Your task to perform on an android device: turn off notifications settings in the gmail app Image 0: 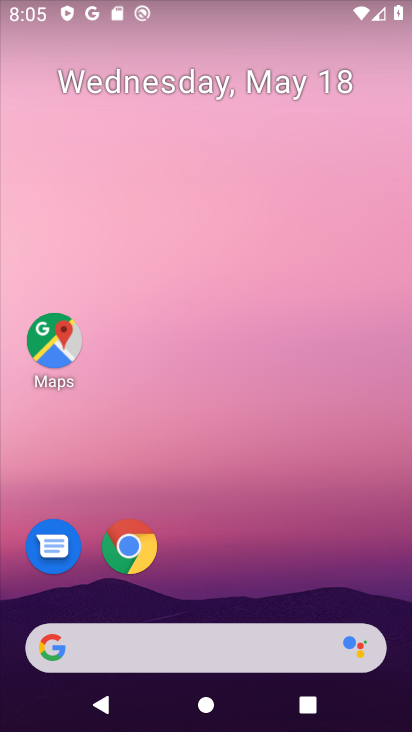
Step 0: drag from (218, 600) to (12, 23)
Your task to perform on an android device: turn off notifications settings in the gmail app Image 1: 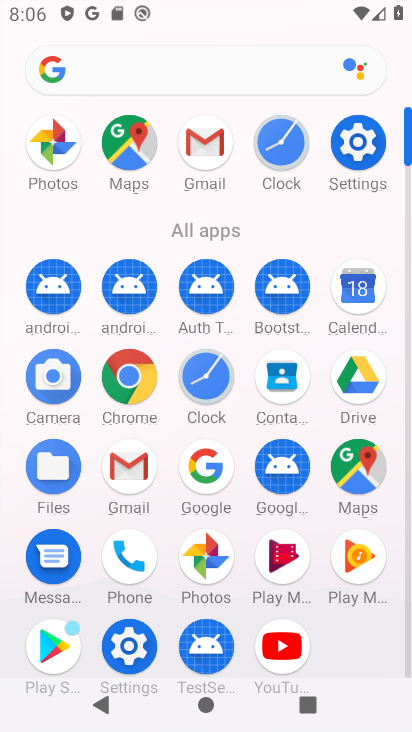
Step 1: click (215, 151)
Your task to perform on an android device: turn off notifications settings in the gmail app Image 2: 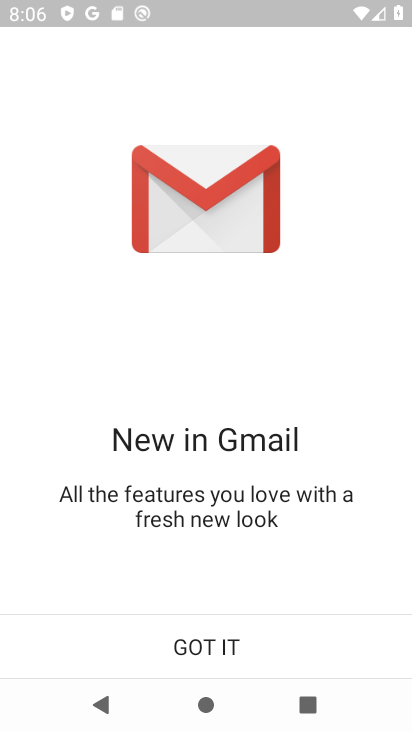
Step 2: click (240, 151)
Your task to perform on an android device: turn off notifications settings in the gmail app Image 3: 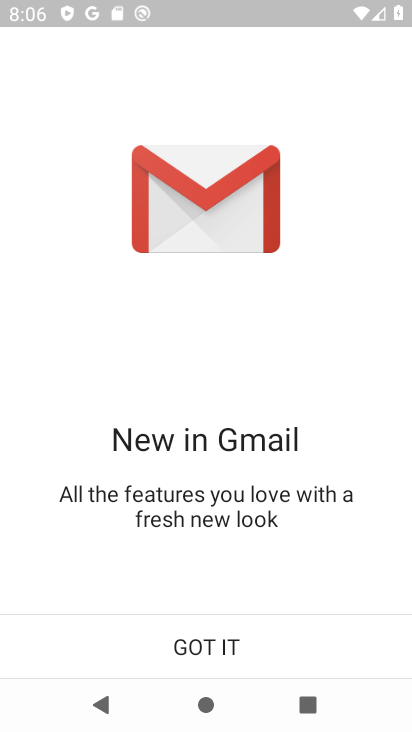
Step 3: click (212, 647)
Your task to perform on an android device: turn off notifications settings in the gmail app Image 4: 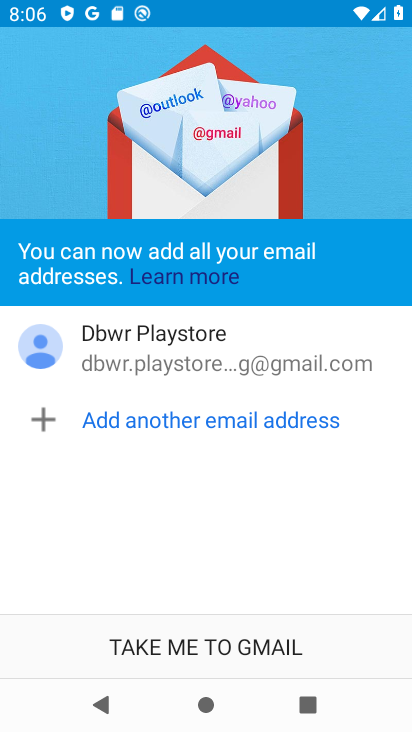
Step 4: click (208, 647)
Your task to perform on an android device: turn off notifications settings in the gmail app Image 5: 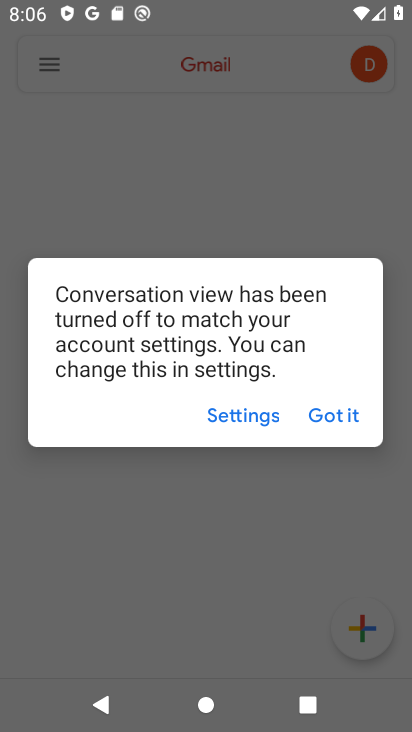
Step 5: click (353, 415)
Your task to perform on an android device: turn off notifications settings in the gmail app Image 6: 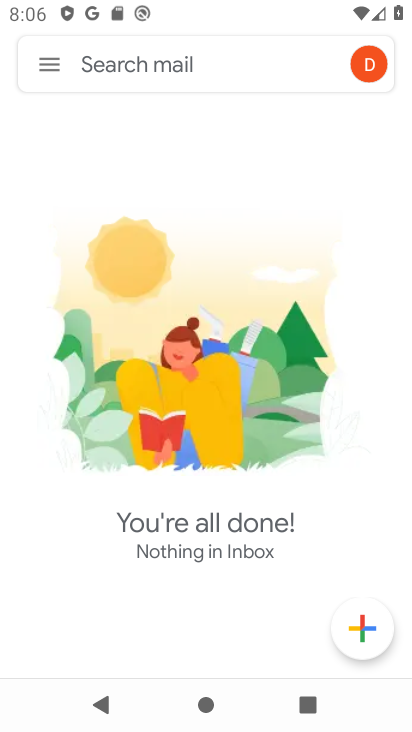
Step 6: click (53, 63)
Your task to perform on an android device: turn off notifications settings in the gmail app Image 7: 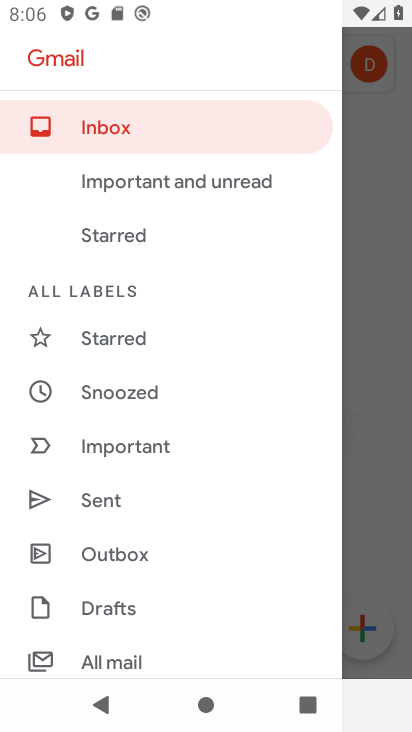
Step 7: drag from (198, 597) to (211, 40)
Your task to perform on an android device: turn off notifications settings in the gmail app Image 8: 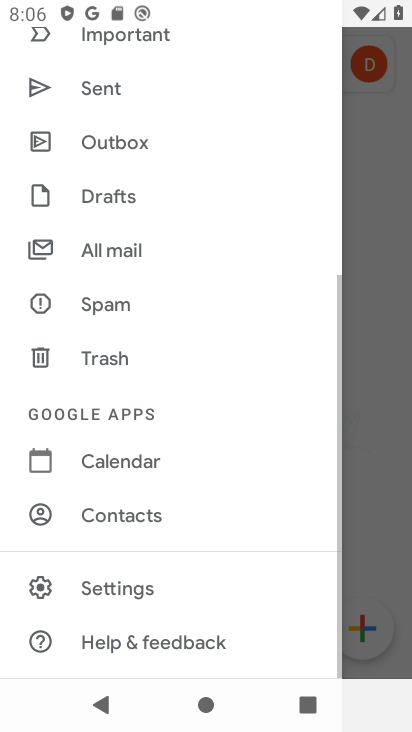
Step 8: click (152, 590)
Your task to perform on an android device: turn off notifications settings in the gmail app Image 9: 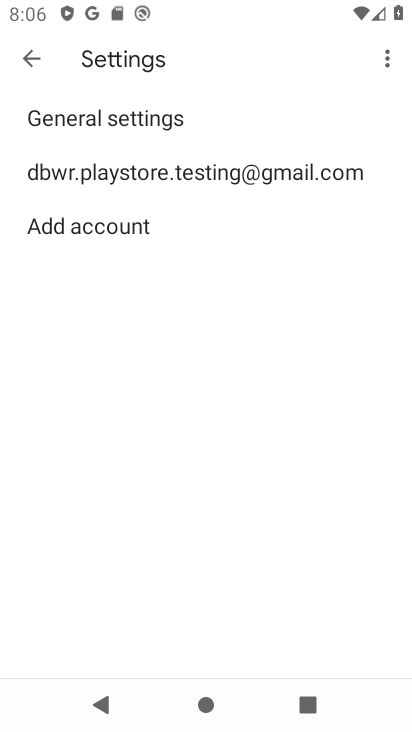
Step 9: click (234, 174)
Your task to perform on an android device: turn off notifications settings in the gmail app Image 10: 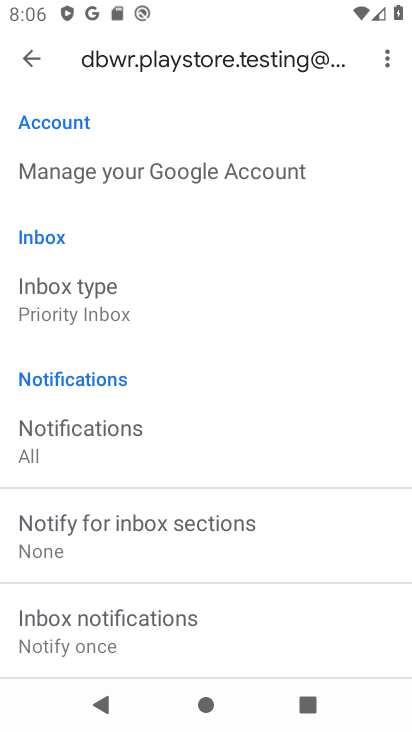
Step 10: drag from (255, 640) to (282, 130)
Your task to perform on an android device: turn off notifications settings in the gmail app Image 11: 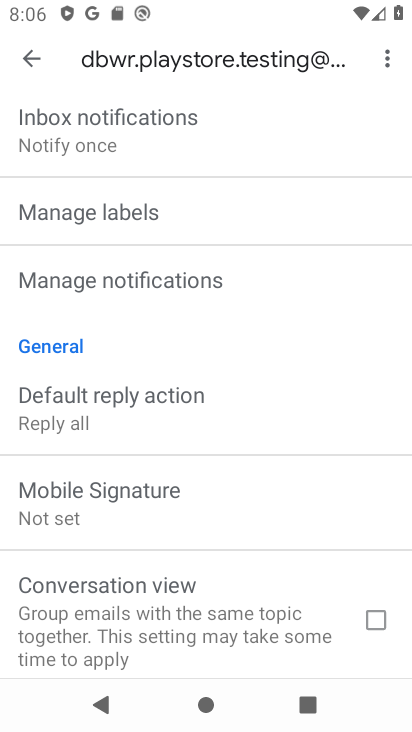
Step 11: click (288, 299)
Your task to perform on an android device: turn off notifications settings in the gmail app Image 12: 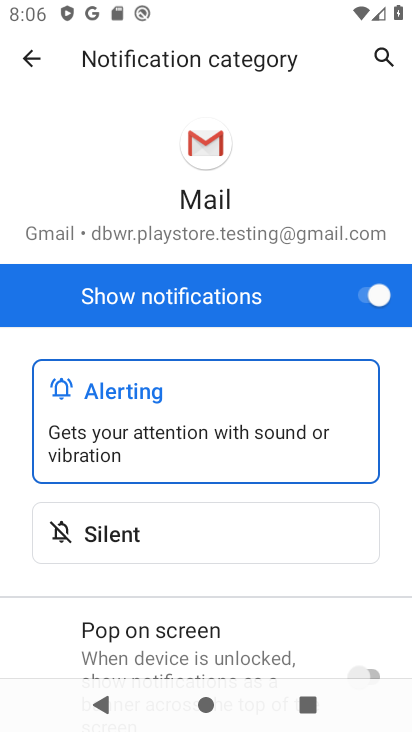
Step 12: task complete